Your task to perform on an android device: stop showing notifications on the lock screen Image 0: 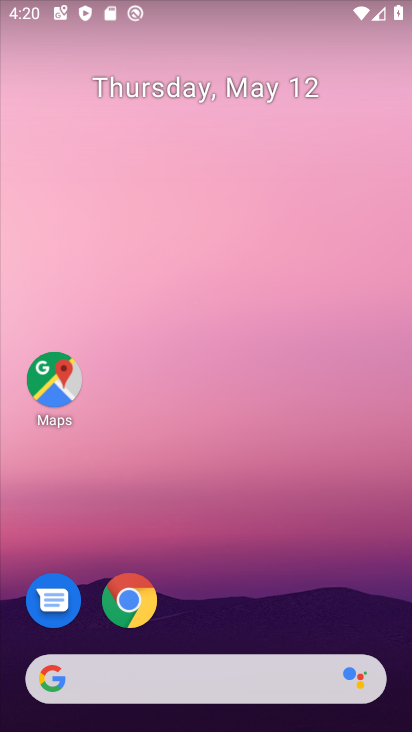
Step 0: drag from (201, 269) to (244, 59)
Your task to perform on an android device: stop showing notifications on the lock screen Image 1: 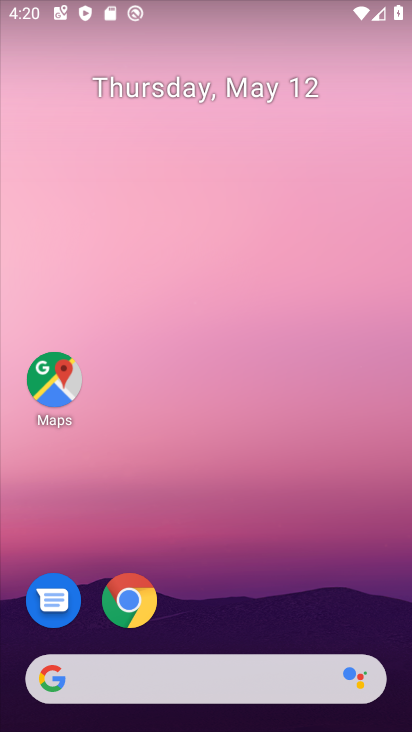
Step 1: drag from (200, 644) to (295, 85)
Your task to perform on an android device: stop showing notifications on the lock screen Image 2: 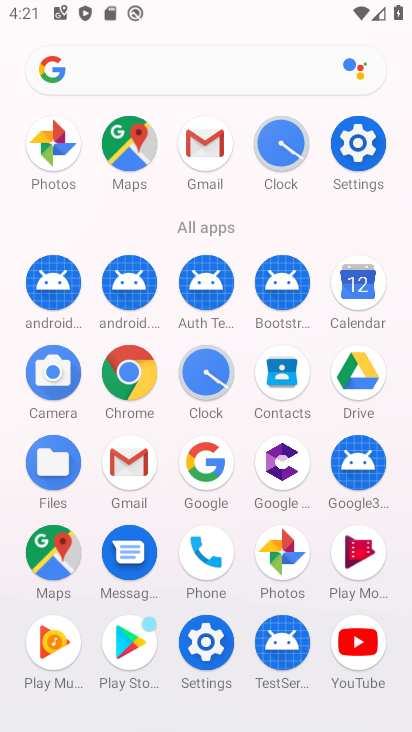
Step 2: click (353, 130)
Your task to perform on an android device: stop showing notifications on the lock screen Image 3: 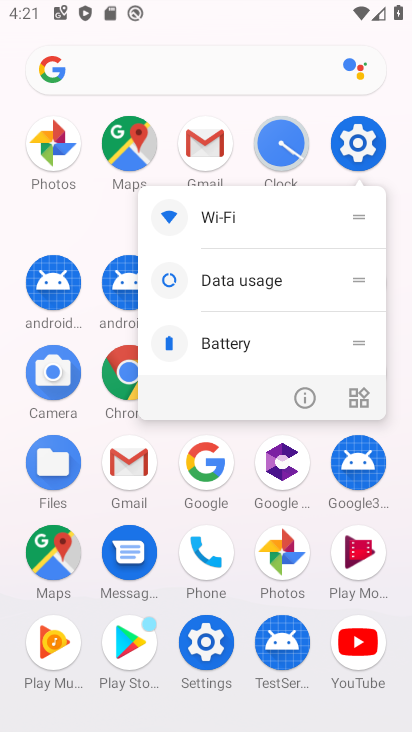
Step 3: click (299, 402)
Your task to perform on an android device: stop showing notifications on the lock screen Image 4: 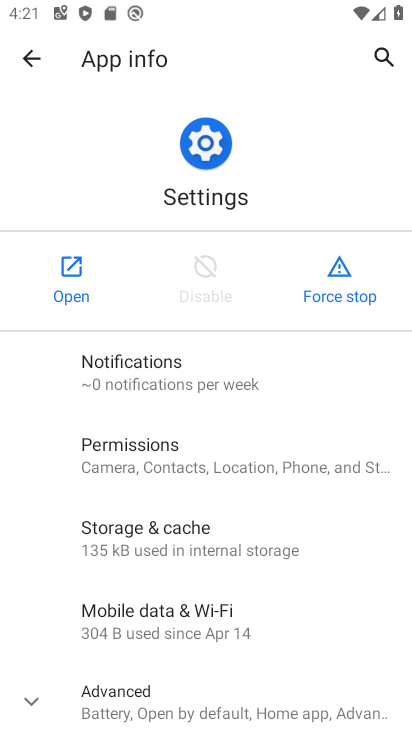
Step 4: drag from (235, 595) to (253, 397)
Your task to perform on an android device: stop showing notifications on the lock screen Image 5: 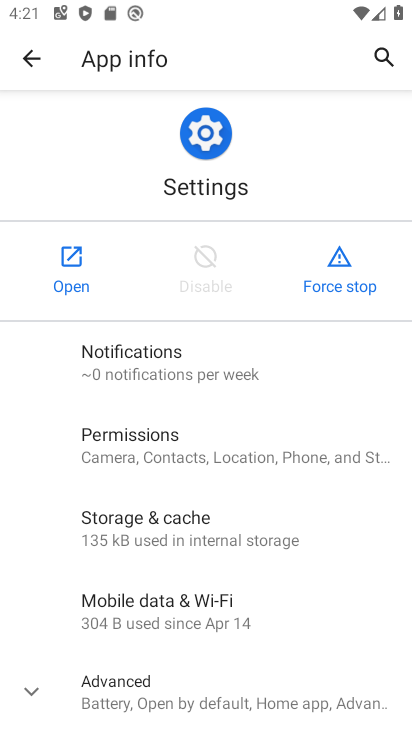
Step 5: click (73, 271)
Your task to perform on an android device: stop showing notifications on the lock screen Image 6: 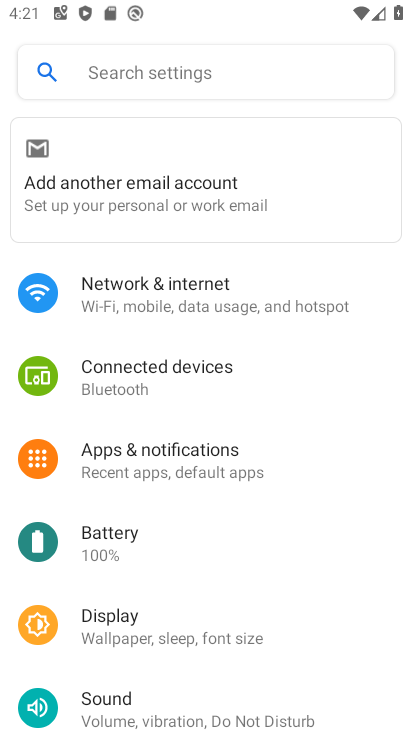
Step 6: drag from (210, 570) to (346, 201)
Your task to perform on an android device: stop showing notifications on the lock screen Image 7: 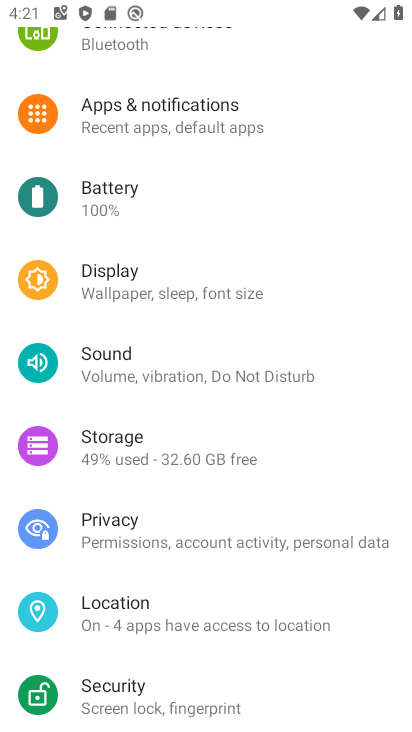
Step 7: click (176, 107)
Your task to perform on an android device: stop showing notifications on the lock screen Image 8: 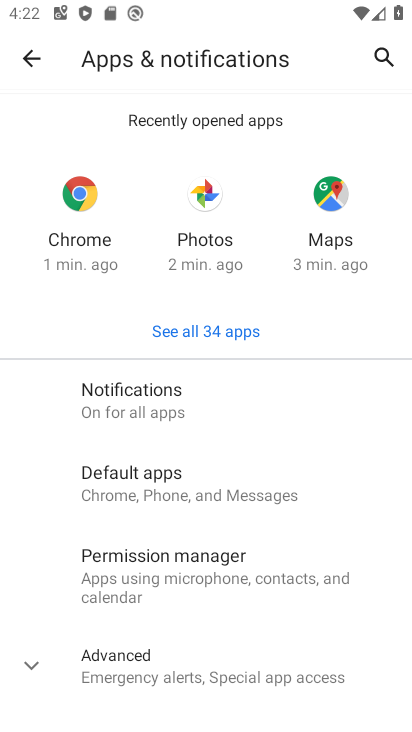
Step 8: click (144, 385)
Your task to perform on an android device: stop showing notifications on the lock screen Image 9: 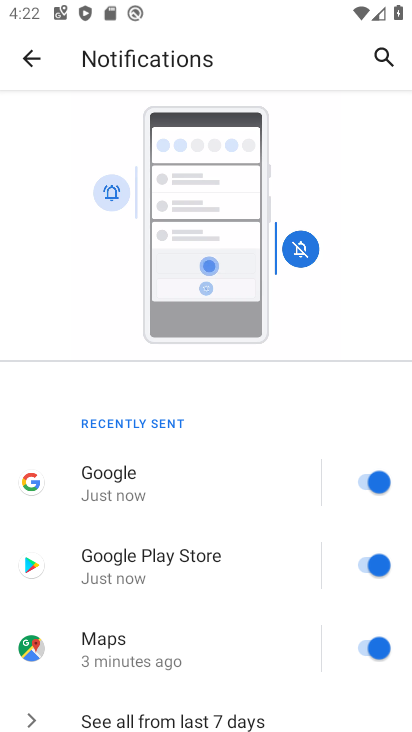
Step 9: drag from (292, 627) to (245, 30)
Your task to perform on an android device: stop showing notifications on the lock screen Image 10: 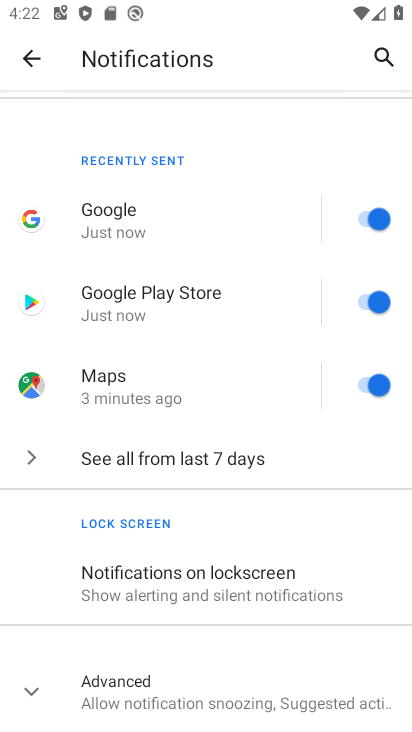
Step 10: click (199, 589)
Your task to perform on an android device: stop showing notifications on the lock screen Image 11: 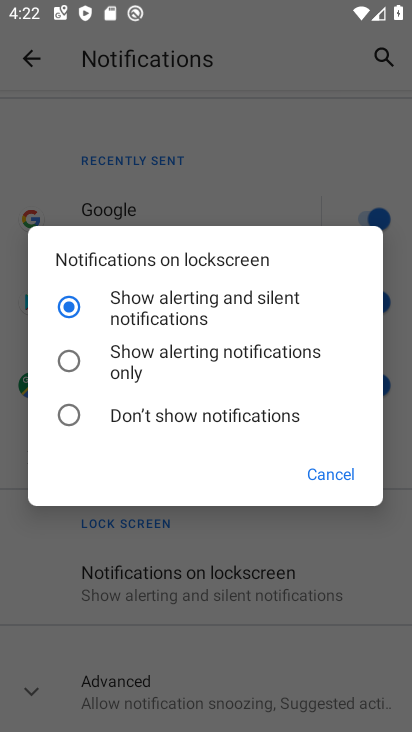
Step 11: click (109, 380)
Your task to perform on an android device: stop showing notifications on the lock screen Image 12: 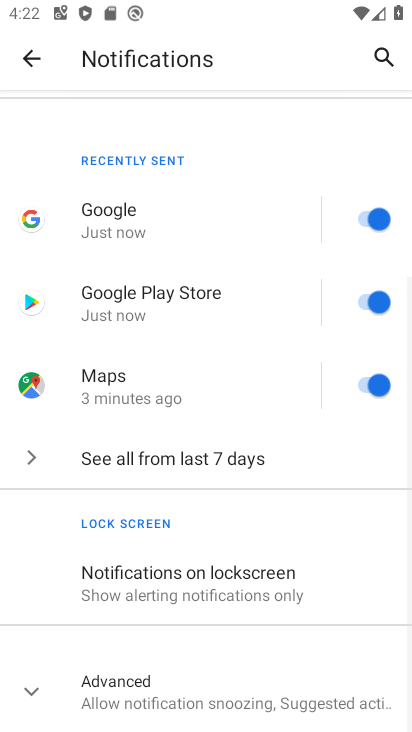
Step 12: drag from (283, 666) to (354, 148)
Your task to perform on an android device: stop showing notifications on the lock screen Image 13: 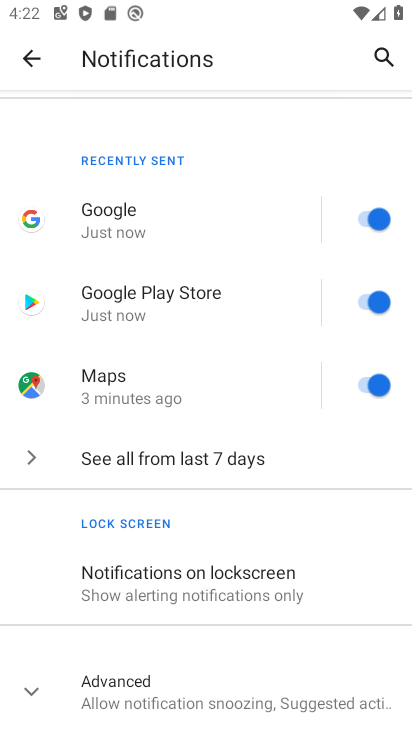
Step 13: drag from (193, 587) to (239, 313)
Your task to perform on an android device: stop showing notifications on the lock screen Image 14: 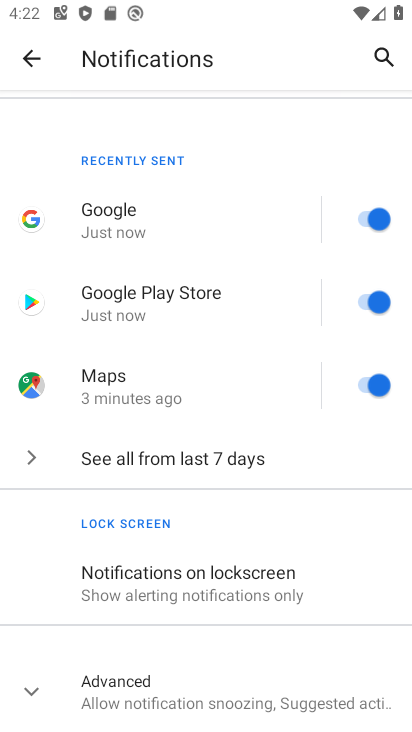
Step 14: drag from (202, 682) to (308, 310)
Your task to perform on an android device: stop showing notifications on the lock screen Image 15: 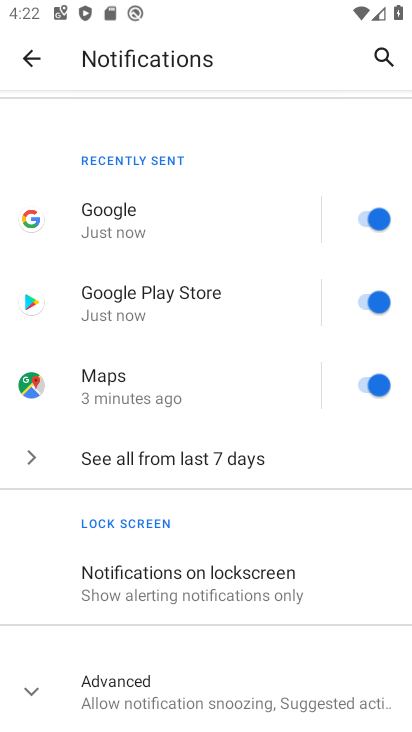
Step 15: click (195, 593)
Your task to perform on an android device: stop showing notifications on the lock screen Image 16: 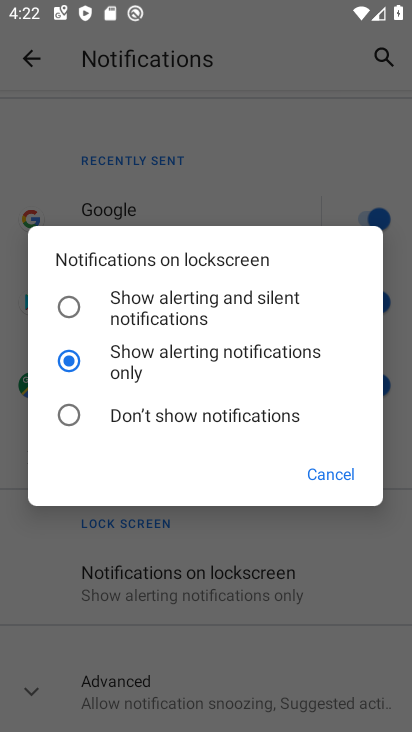
Step 16: click (73, 402)
Your task to perform on an android device: stop showing notifications on the lock screen Image 17: 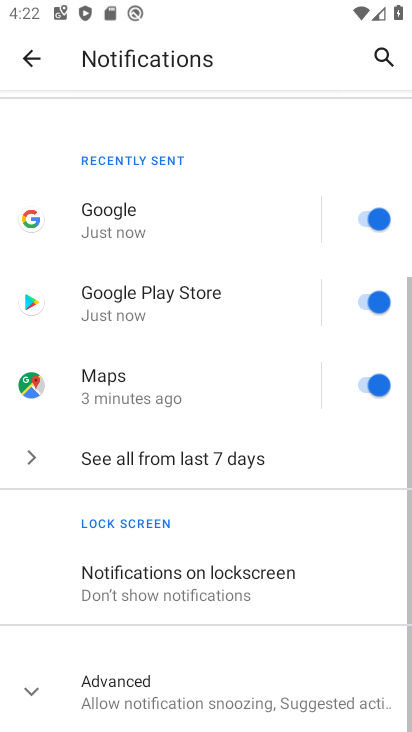
Step 17: task complete